Your task to perform on an android device: choose inbox layout in the gmail app Image 0: 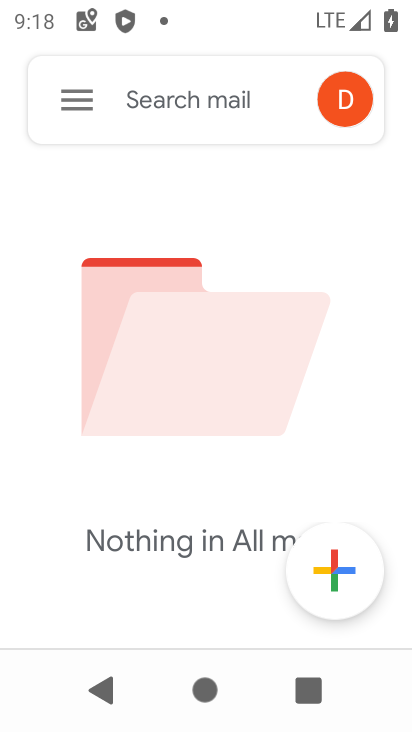
Step 0: click (65, 105)
Your task to perform on an android device: choose inbox layout in the gmail app Image 1: 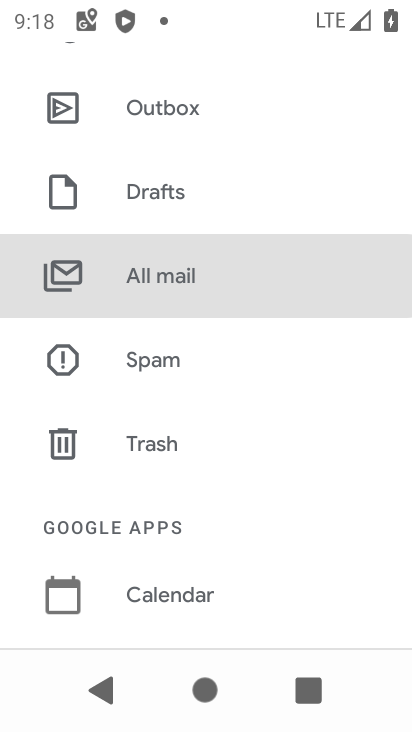
Step 1: drag from (151, 511) to (198, 143)
Your task to perform on an android device: choose inbox layout in the gmail app Image 2: 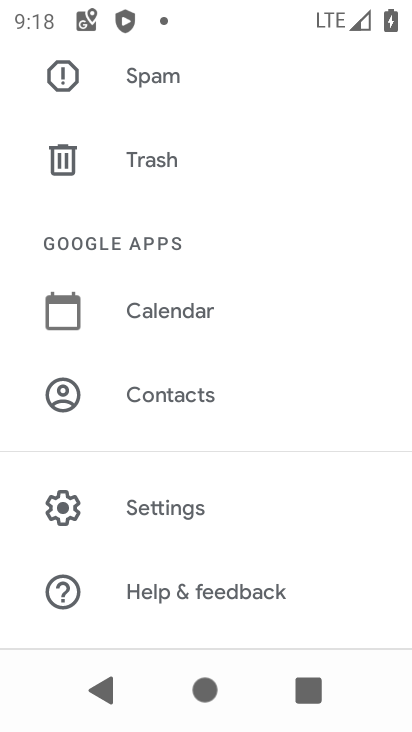
Step 2: click (171, 503)
Your task to perform on an android device: choose inbox layout in the gmail app Image 3: 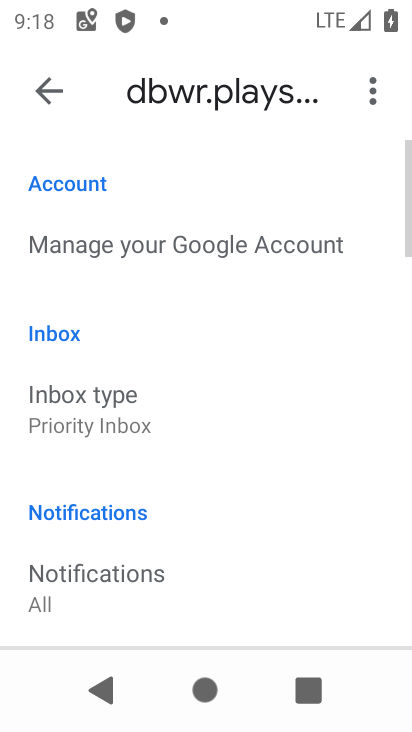
Step 3: click (181, 433)
Your task to perform on an android device: choose inbox layout in the gmail app Image 4: 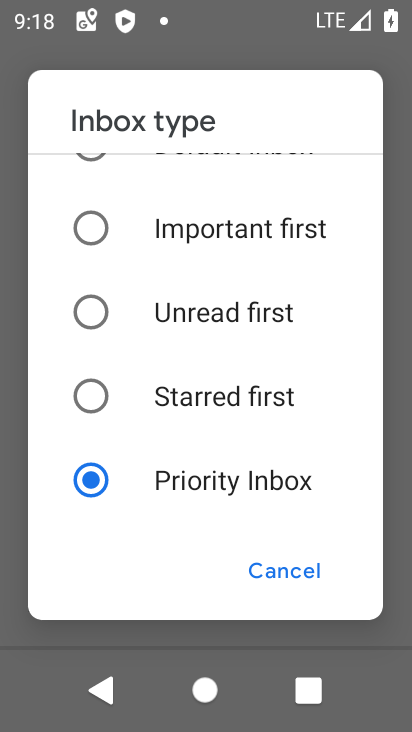
Step 4: drag from (192, 244) to (182, 413)
Your task to perform on an android device: choose inbox layout in the gmail app Image 5: 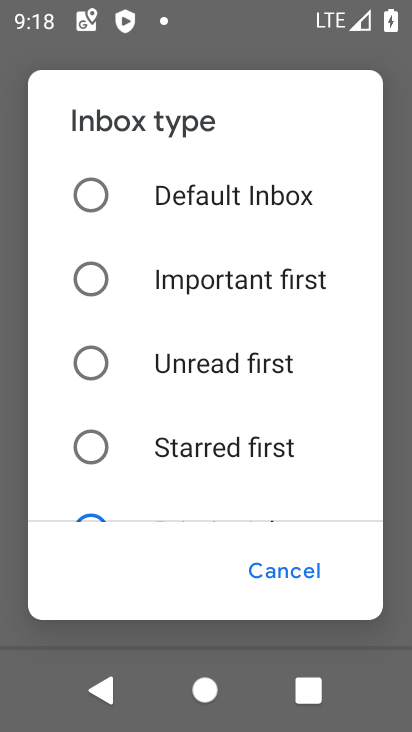
Step 5: click (170, 195)
Your task to perform on an android device: choose inbox layout in the gmail app Image 6: 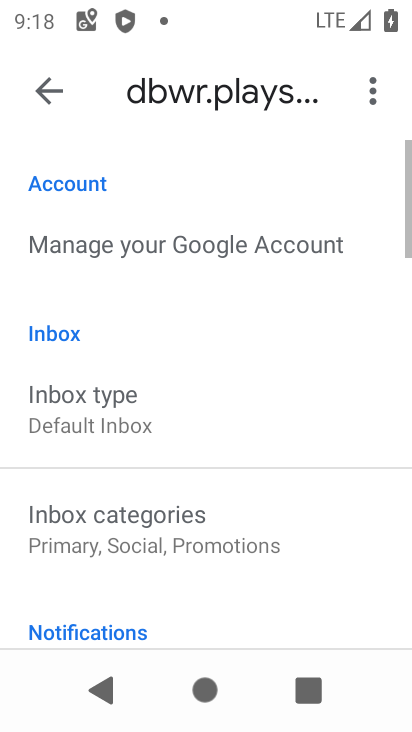
Step 6: task complete